Your task to perform on an android device: What's on my calendar tomorrow? Image 0: 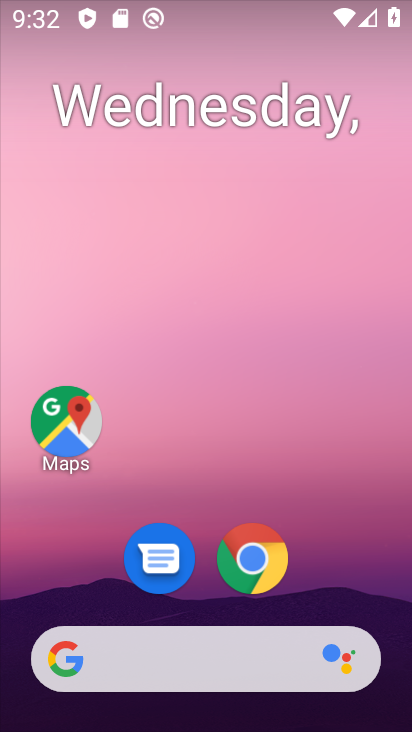
Step 0: drag from (28, 567) to (336, 94)
Your task to perform on an android device: What's on my calendar tomorrow? Image 1: 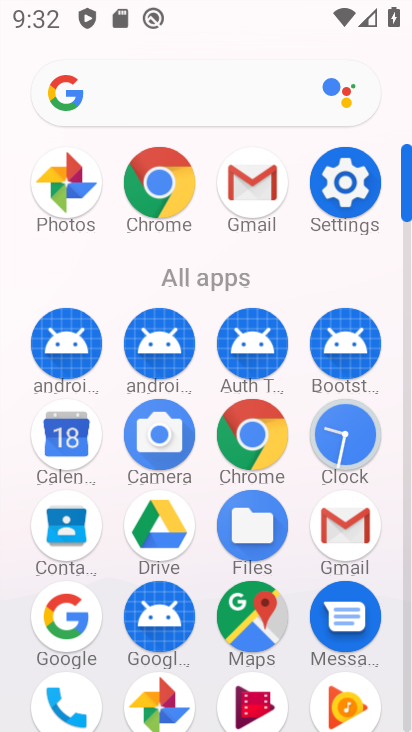
Step 1: click (60, 423)
Your task to perform on an android device: What's on my calendar tomorrow? Image 2: 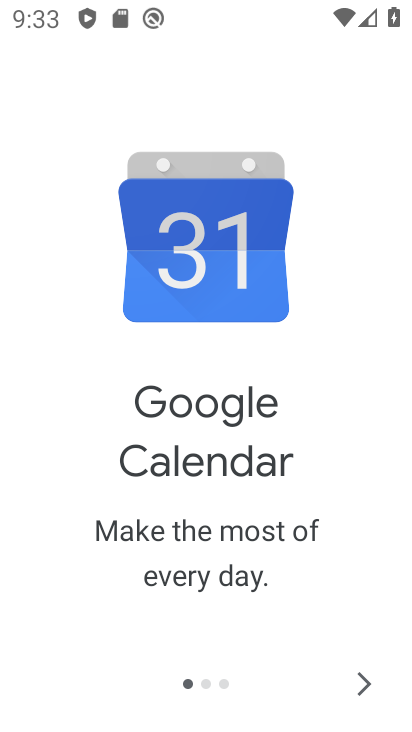
Step 2: click (366, 682)
Your task to perform on an android device: What's on my calendar tomorrow? Image 3: 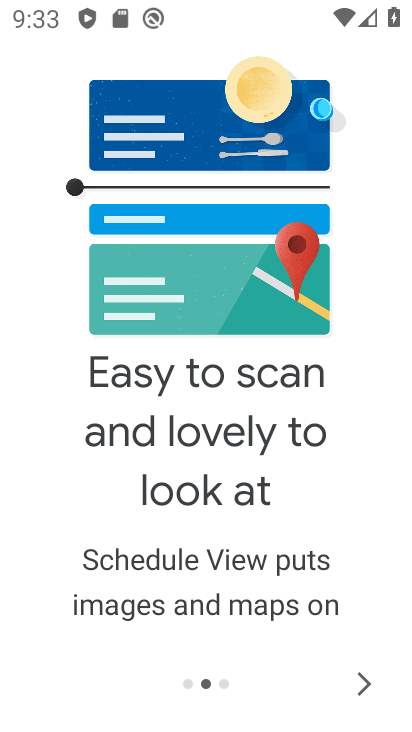
Step 3: click (366, 681)
Your task to perform on an android device: What's on my calendar tomorrow? Image 4: 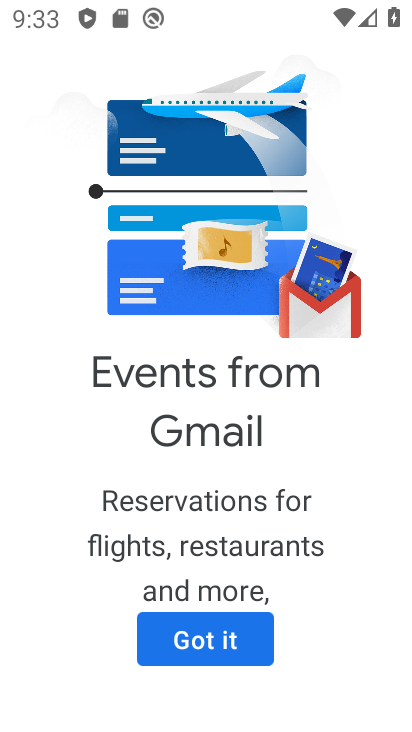
Step 4: click (195, 630)
Your task to perform on an android device: What's on my calendar tomorrow? Image 5: 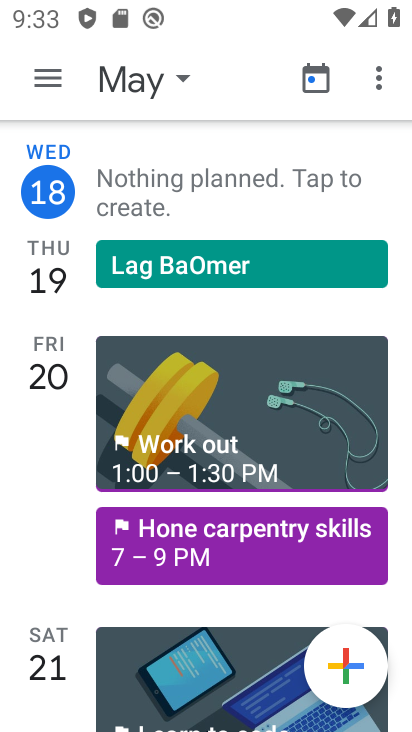
Step 5: click (142, 70)
Your task to perform on an android device: What's on my calendar tomorrow? Image 6: 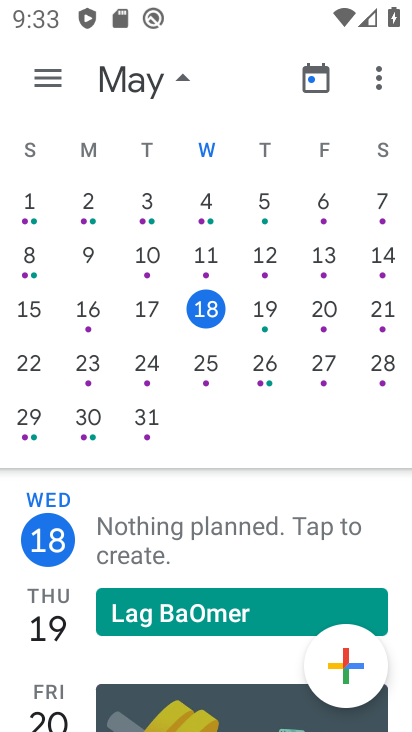
Step 6: click (256, 321)
Your task to perform on an android device: What's on my calendar tomorrow? Image 7: 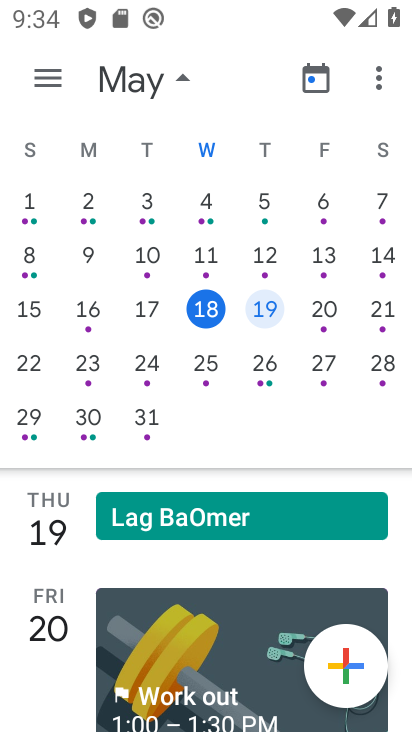
Step 7: task complete